Your task to perform on an android device: add a contact in the contacts app Image 0: 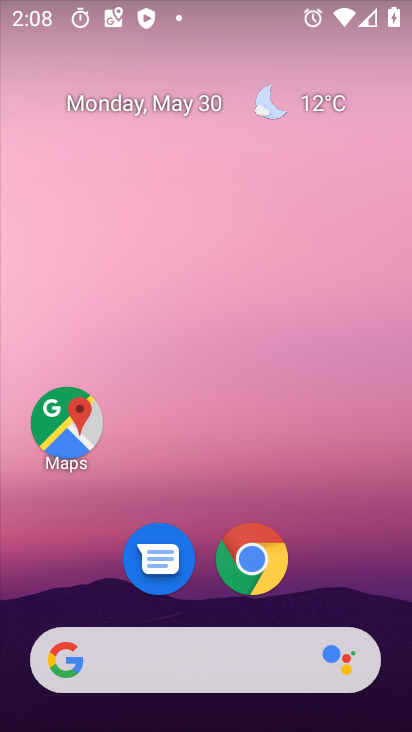
Step 0: drag from (229, 441) to (256, 101)
Your task to perform on an android device: add a contact in the contacts app Image 1: 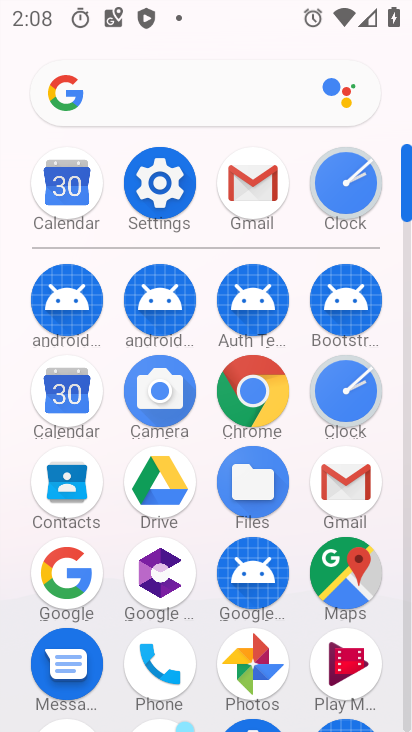
Step 1: click (62, 479)
Your task to perform on an android device: add a contact in the contacts app Image 2: 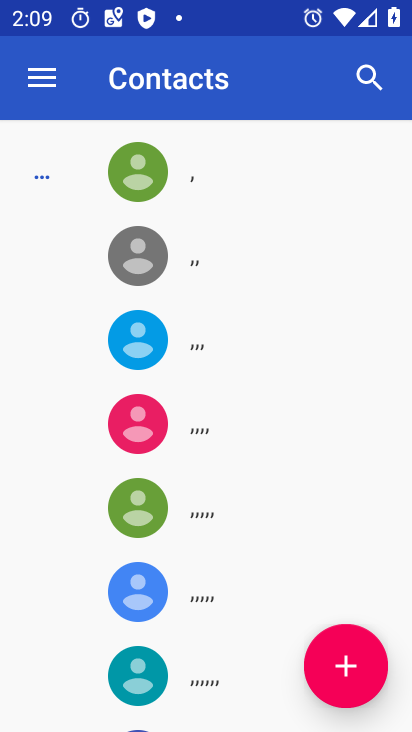
Step 2: click (348, 657)
Your task to perform on an android device: add a contact in the contacts app Image 3: 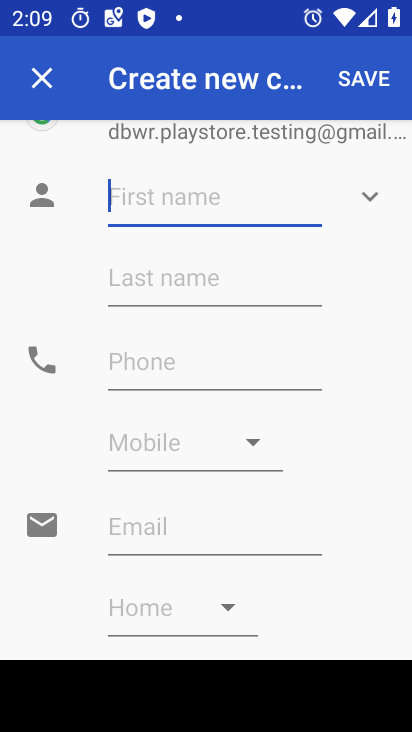
Step 3: type "fgfg"
Your task to perform on an android device: add a contact in the contacts app Image 4: 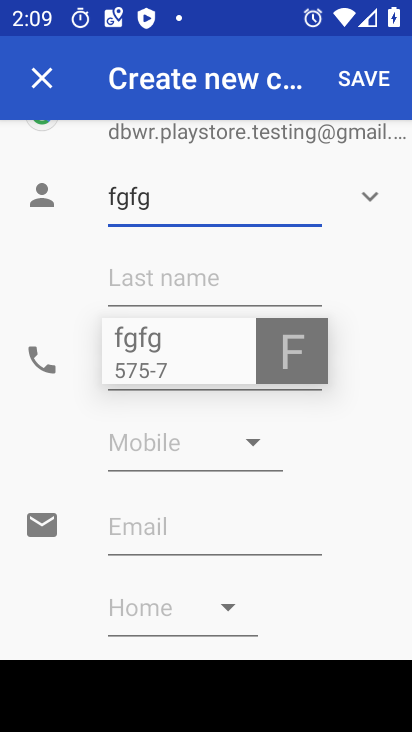
Step 4: click (161, 362)
Your task to perform on an android device: add a contact in the contacts app Image 5: 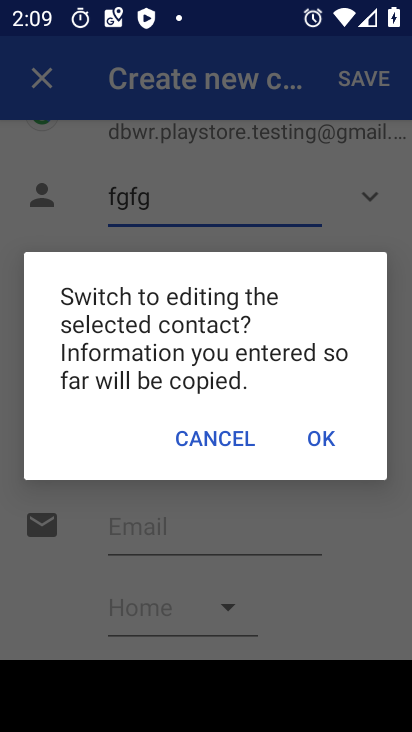
Step 5: click (311, 443)
Your task to perform on an android device: add a contact in the contacts app Image 6: 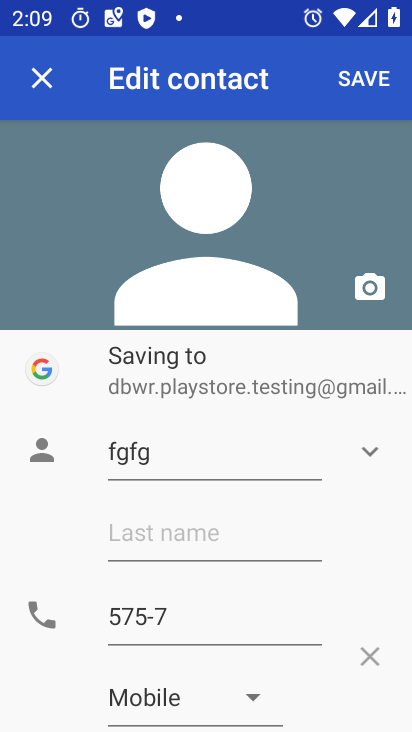
Step 6: click (367, 83)
Your task to perform on an android device: add a contact in the contacts app Image 7: 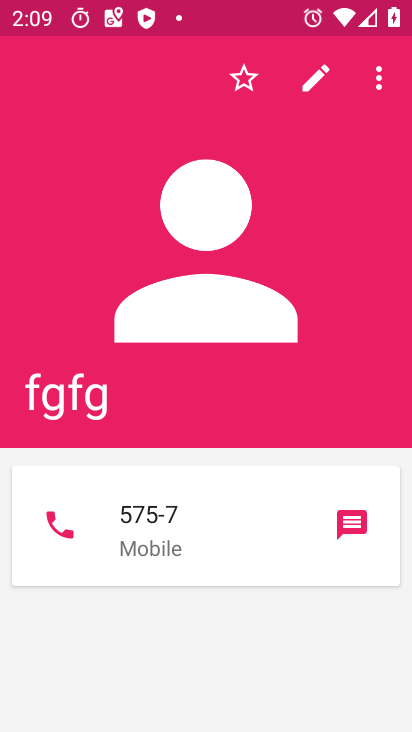
Step 7: task complete